Your task to perform on an android device: Go to ESPN.com Image 0: 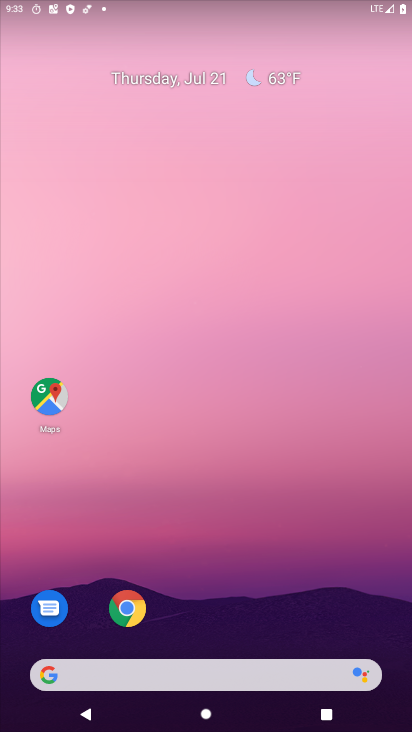
Step 0: drag from (204, 359) to (259, 33)
Your task to perform on an android device: Go to ESPN.com Image 1: 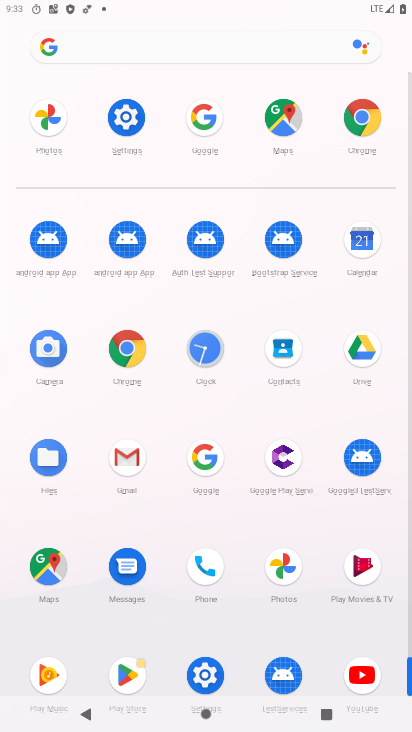
Step 1: click (364, 137)
Your task to perform on an android device: Go to ESPN.com Image 2: 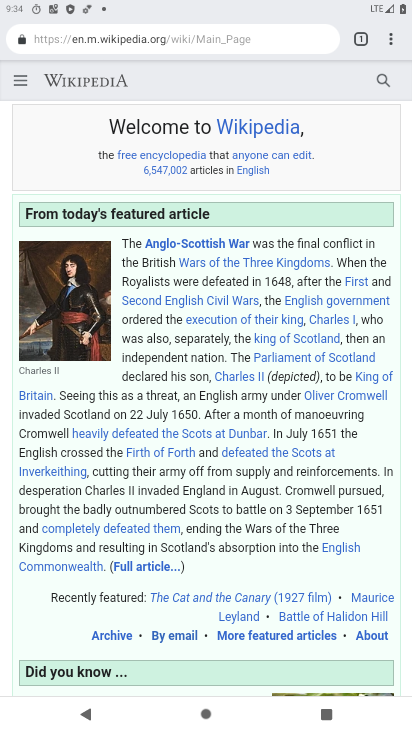
Step 2: click (275, 30)
Your task to perform on an android device: Go to ESPN.com Image 3: 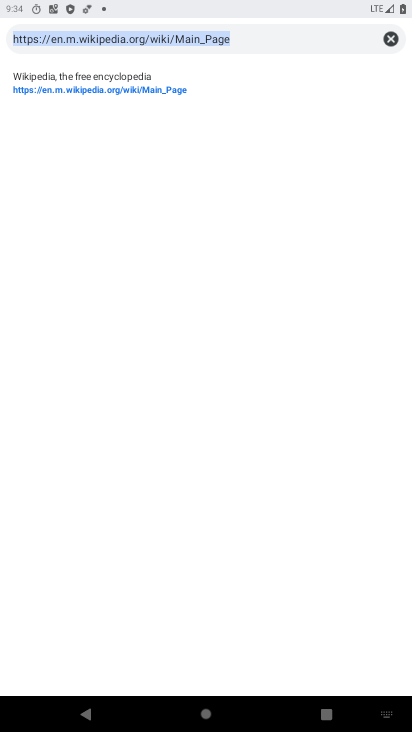
Step 3: type "espn"
Your task to perform on an android device: Go to ESPN.com Image 4: 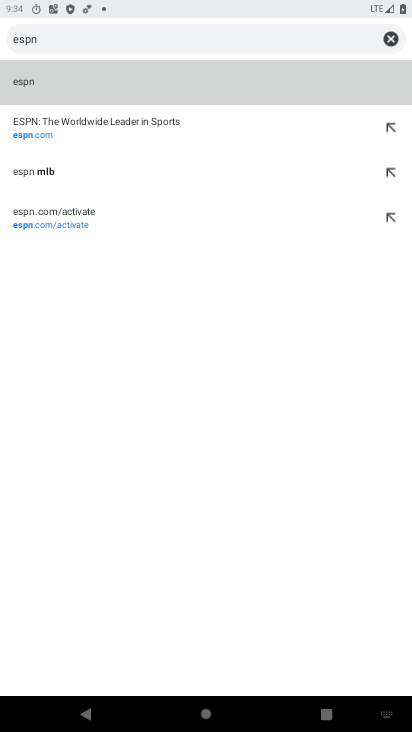
Step 4: click (241, 142)
Your task to perform on an android device: Go to ESPN.com Image 5: 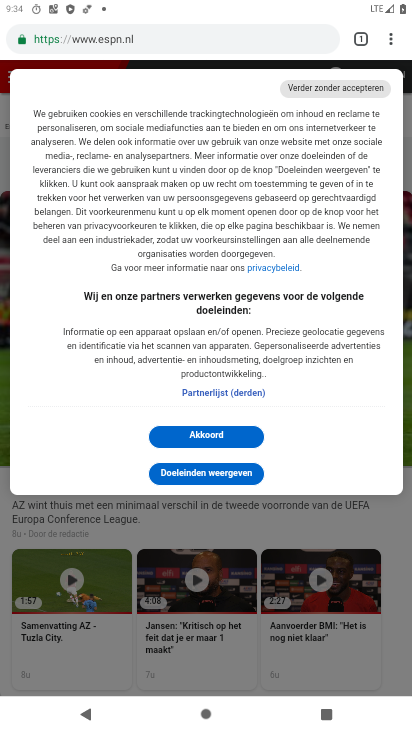
Step 5: task complete